Your task to perform on an android device: What's a good restaurant in New Jersey? Image 0: 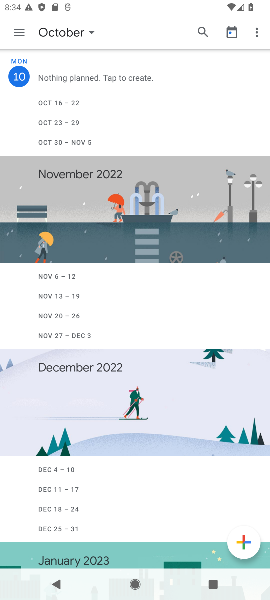
Step 0: press home button
Your task to perform on an android device: What's a good restaurant in New Jersey? Image 1: 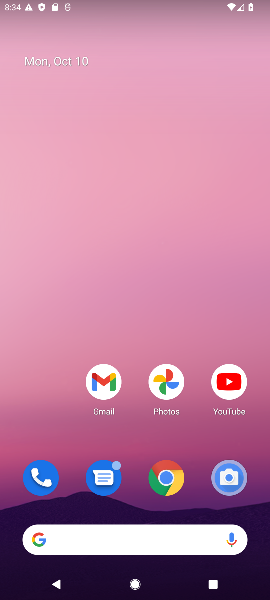
Step 1: click (173, 481)
Your task to perform on an android device: What's a good restaurant in New Jersey? Image 2: 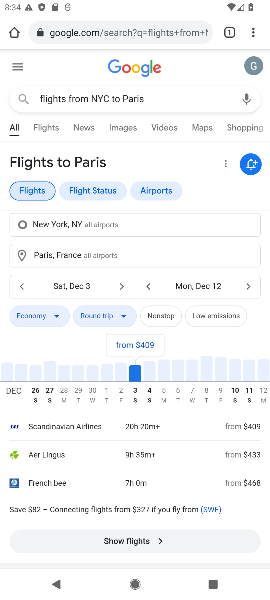
Step 2: click (151, 29)
Your task to perform on an android device: What's a good restaurant in New Jersey? Image 3: 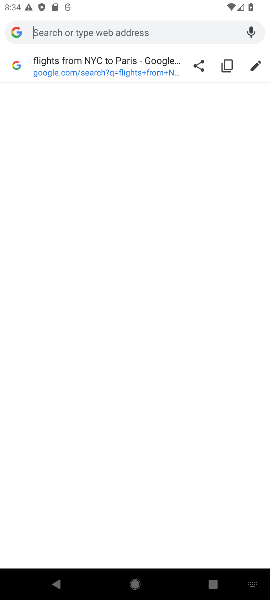
Step 3: type "What's a good restaurant in New Jersey?"
Your task to perform on an android device: What's a good restaurant in New Jersey? Image 4: 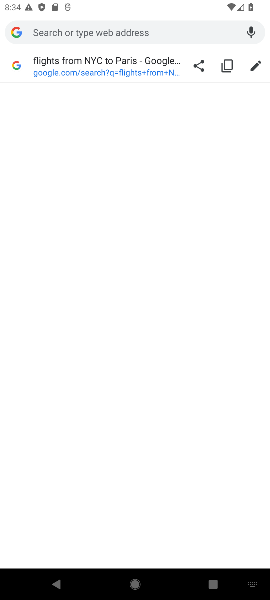
Step 4: click (174, 29)
Your task to perform on an android device: What's a good restaurant in New Jersey? Image 5: 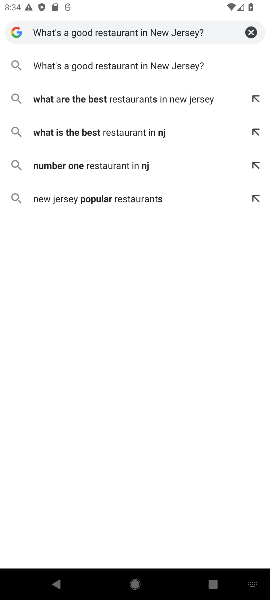
Step 5: click (152, 71)
Your task to perform on an android device: What's a good restaurant in New Jersey? Image 6: 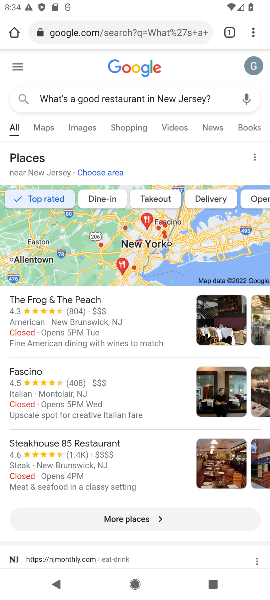
Step 6: task complete